Your task to perform on an android device: Open Chrome and go to settings Image 0: 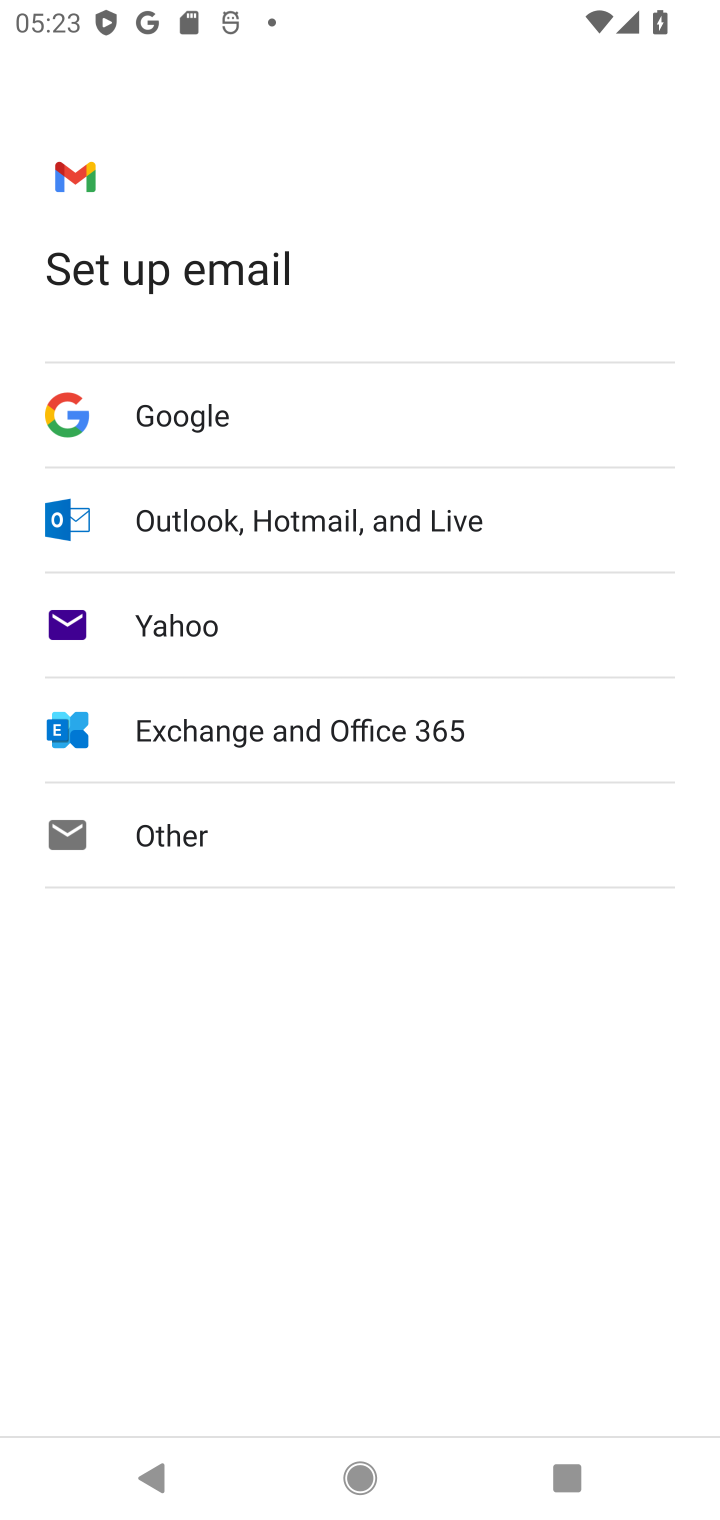
Step 0: press home button
Your task to perform on an android device: Open Chrome and go to settings Image 1: 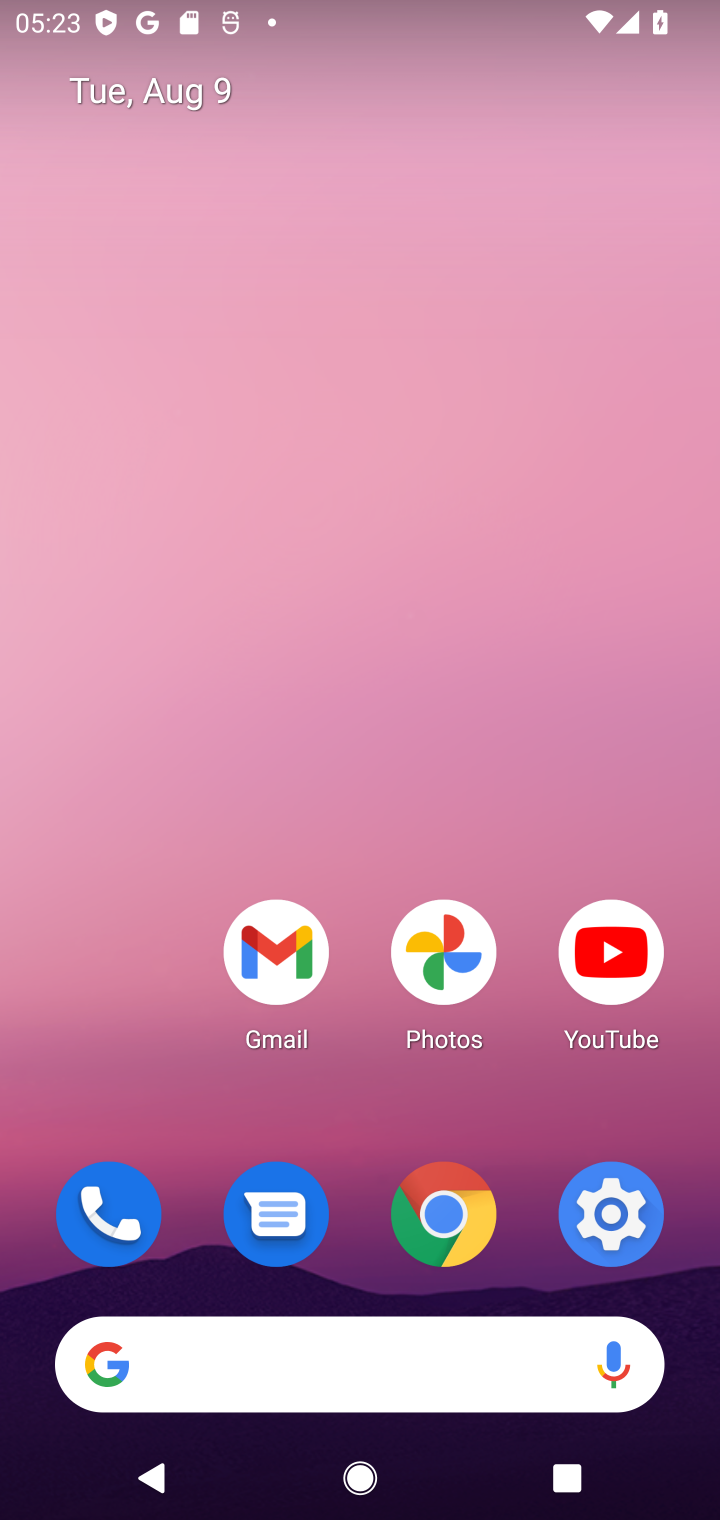
Step 1: drag from (491, 1210) to (467, 485)
Your task to perform on an android device: Open Chrome and go to settings Image 2: 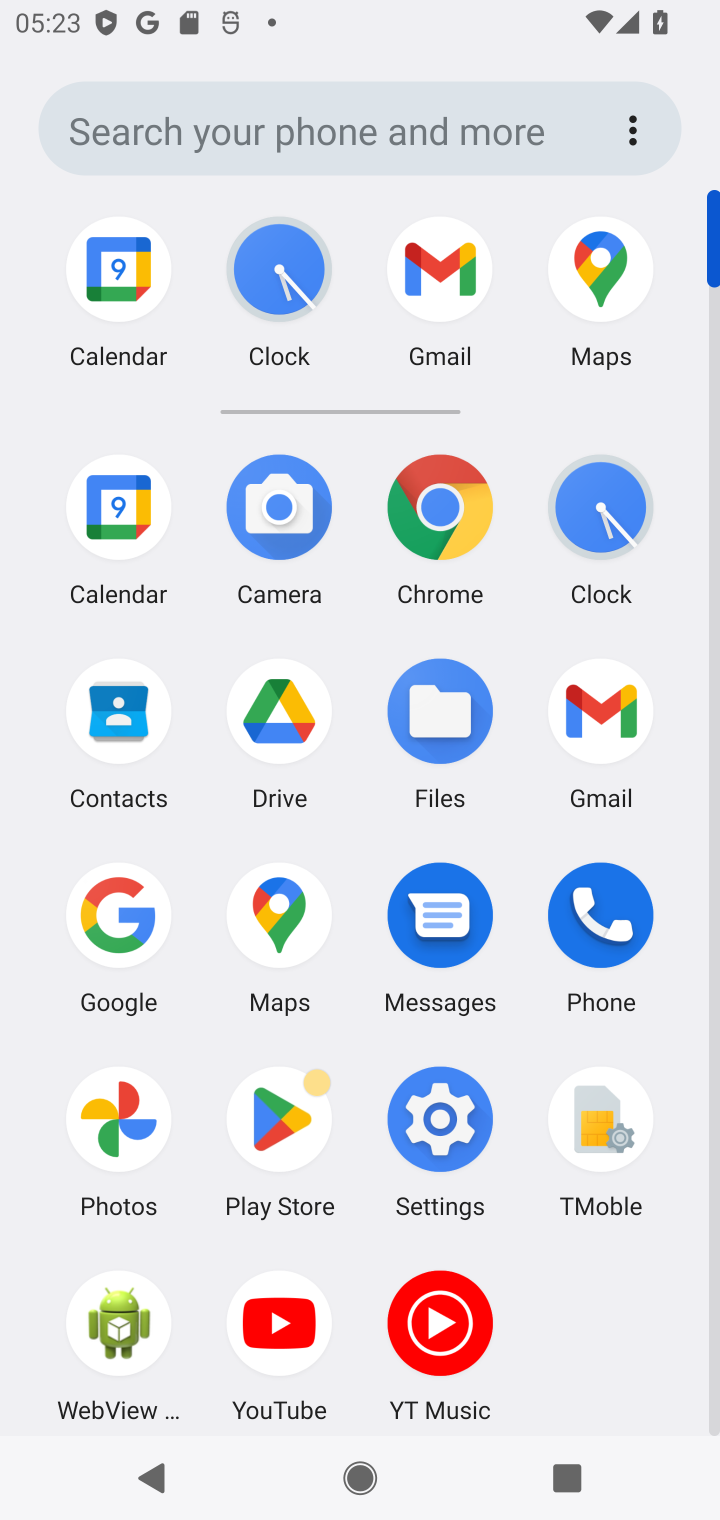
Step 2: click (454, 503)
Your task to perform on an android device: Open Chrome and go to settings Image 3: 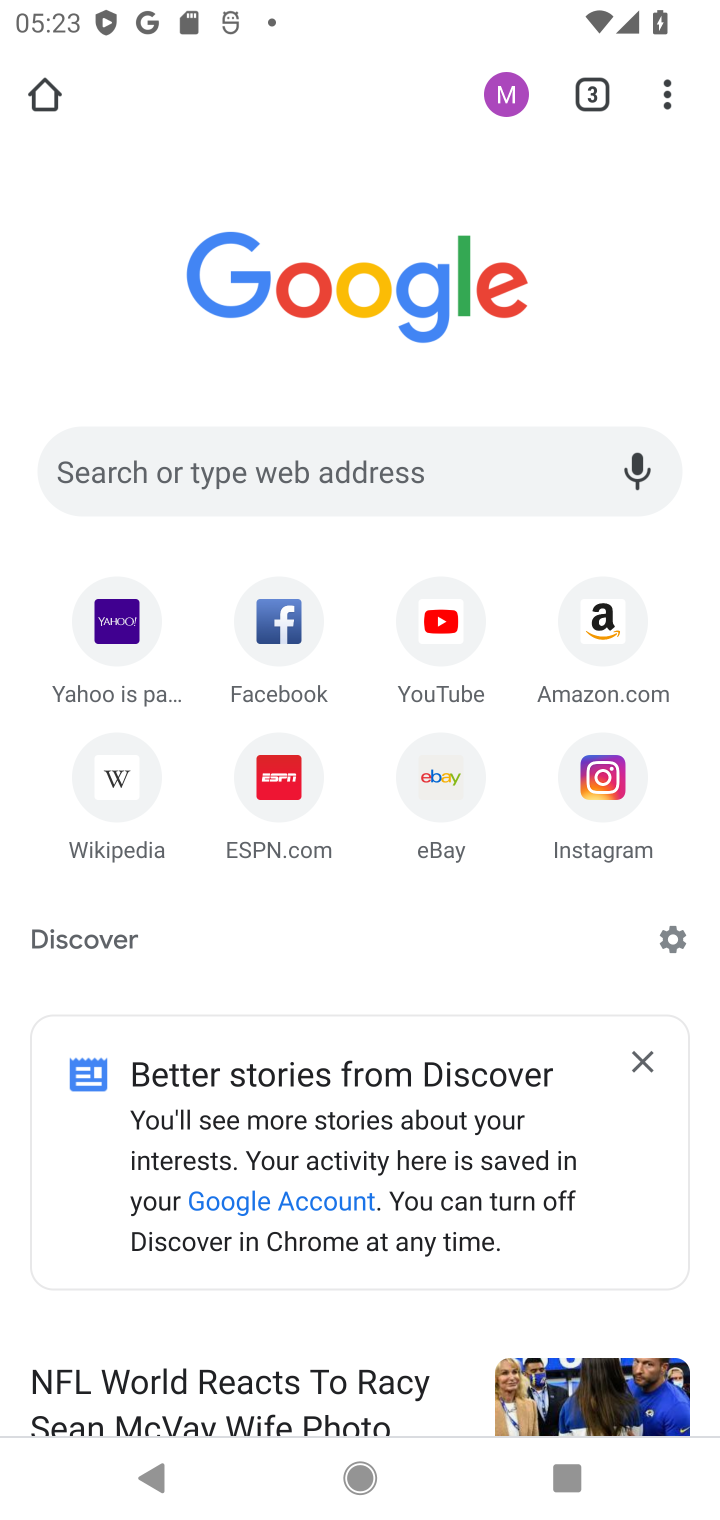
Step 3: click (666, 92)
Your task to perform on an android device: Open Chrome and go to settings Image 4: 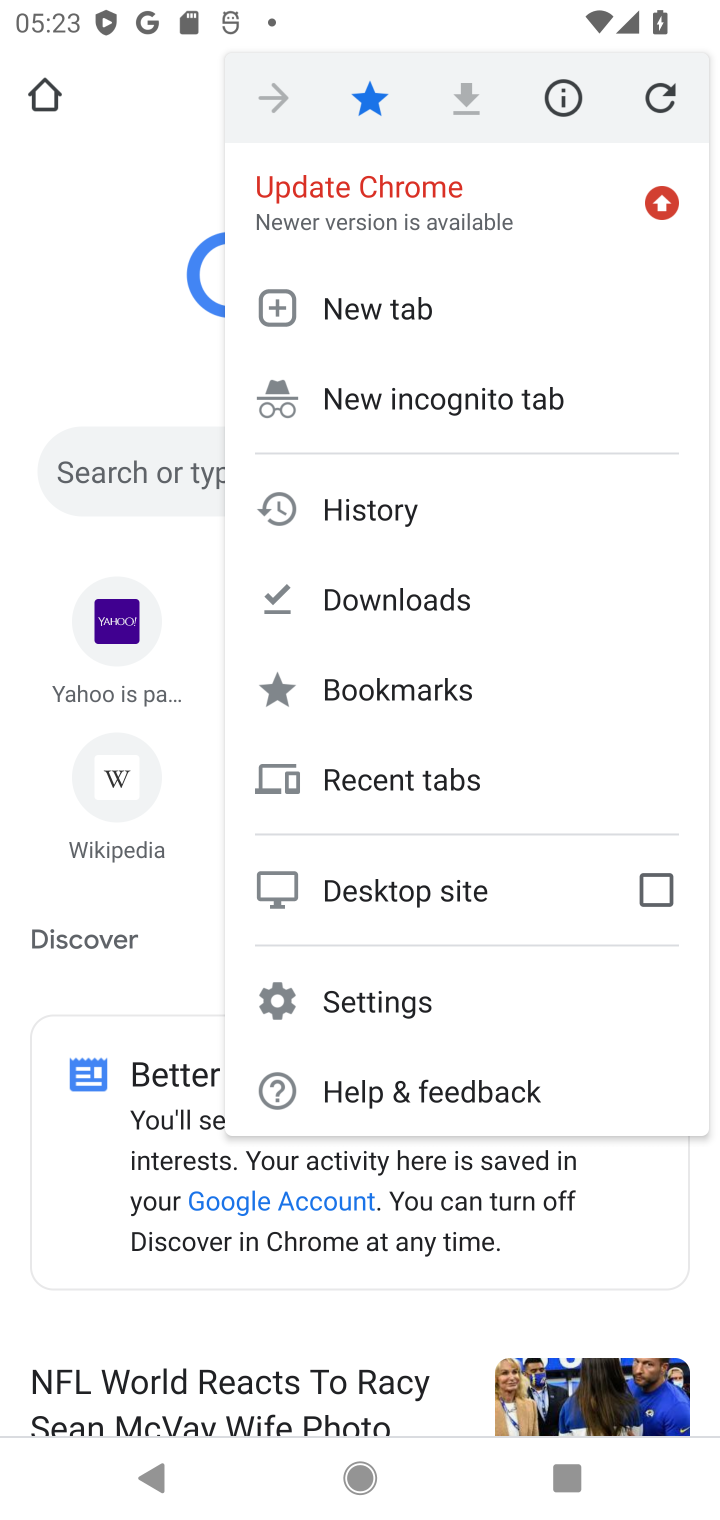
Step 4: click (354, 1012)
Your task to perform on an android device: Open Chrome and go to settings Image 5: 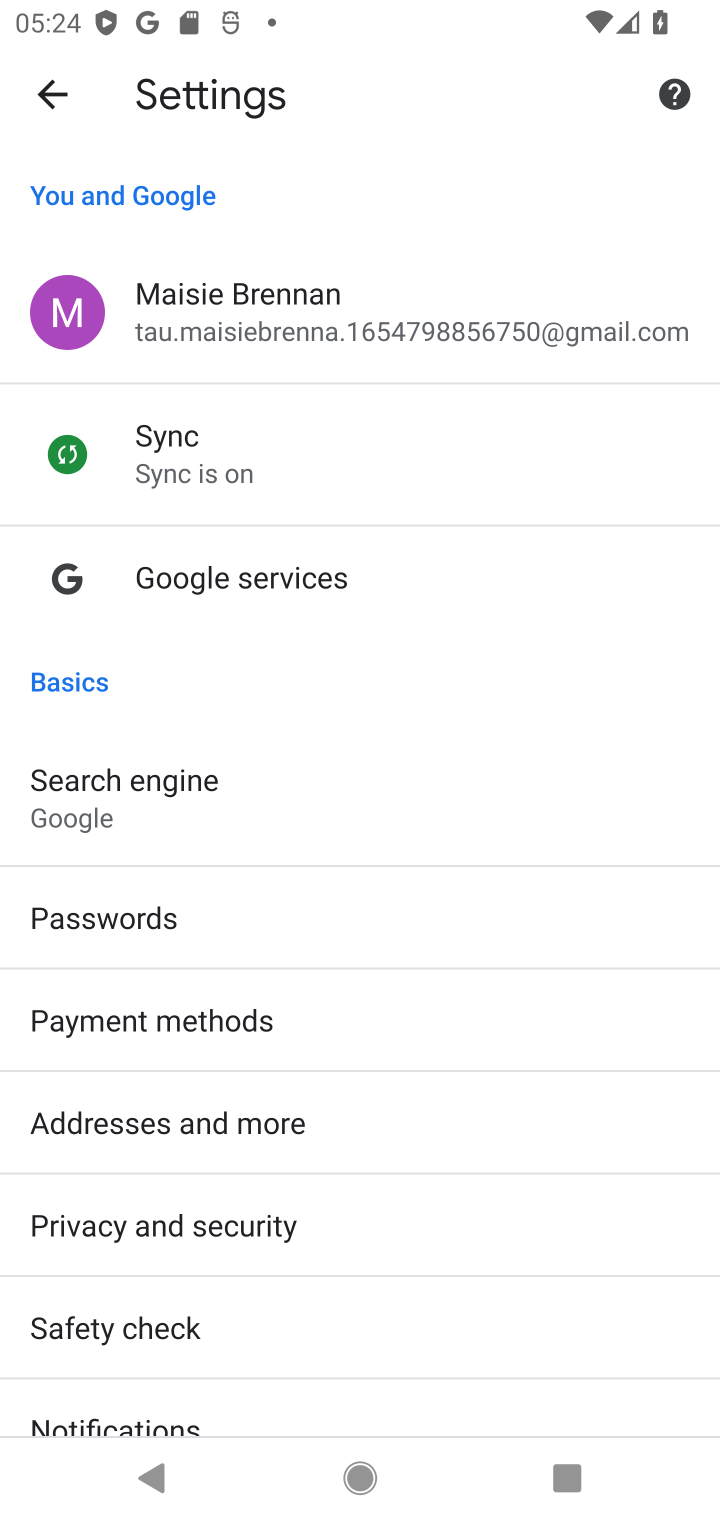
Step 5: task complete